Your task to perform on an android device: turn pop-ups off in chrome Image 0: 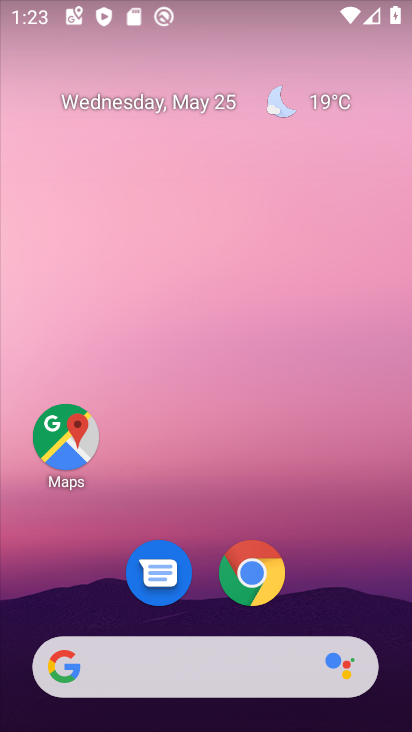
Step 0: click (249, 573)
Your task to perform on an android device: turn pop-ups off in chrome Image 1: 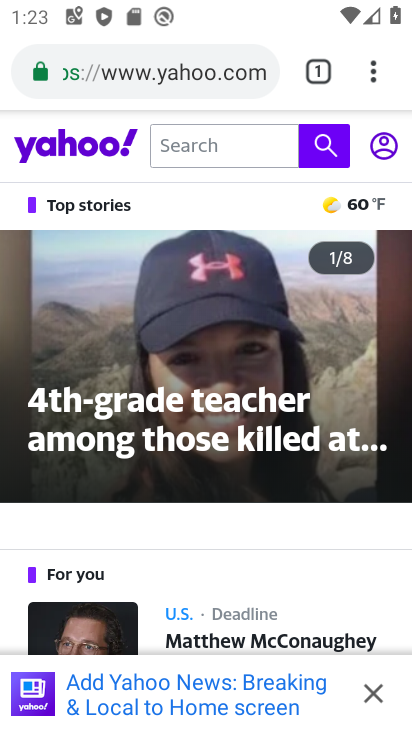
Step 1: click (372, 76)
Your task to perform on an android device: turn pop-ups off in chrome Image 2: 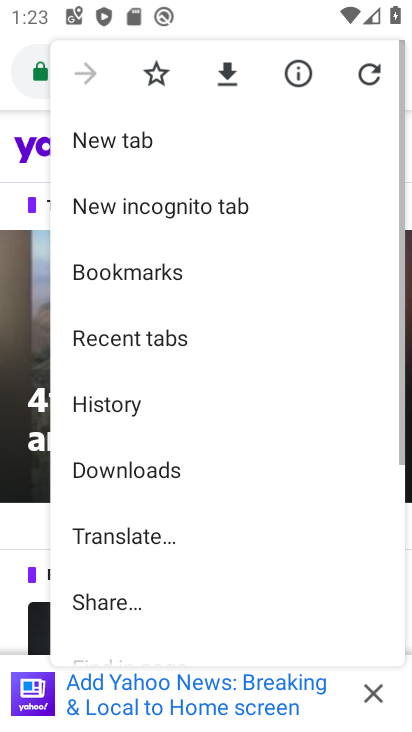
Step 2: drag from (205, 557) to (287, 159)
Your task to perform on an android device: turn pop-ups off in chrome Image 3: 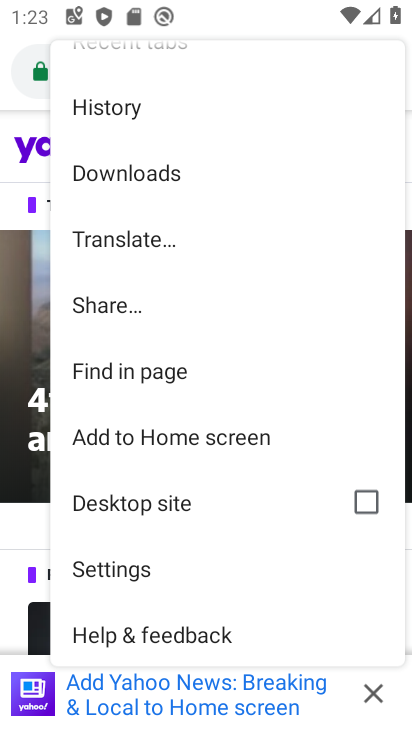
Step 3: click (133, 588)
Your task to perform on an android device: turn pop-ups off in chrome Image 4: 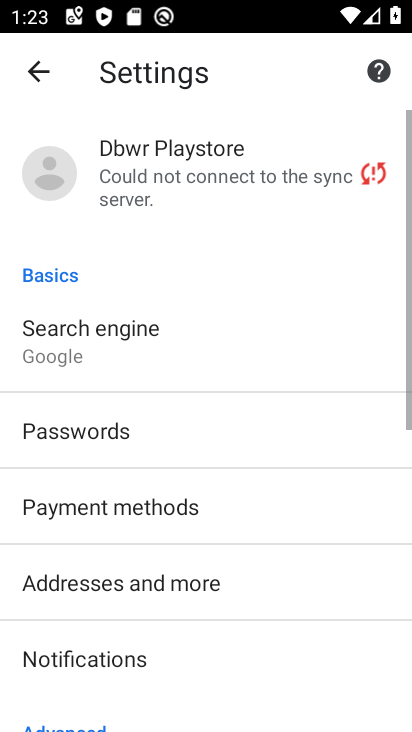
Step 4: drag from (217, 614) to (250, 226)
Your task to perform on an android device: turn pop-ups off in chrome Image 5: 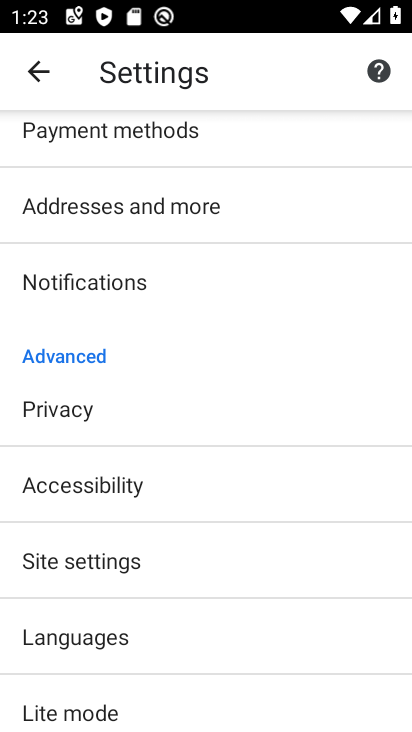
Step 5: click (84, 565)
Your task to perform on an android device: turn pop-ups off in chrome Image 6: 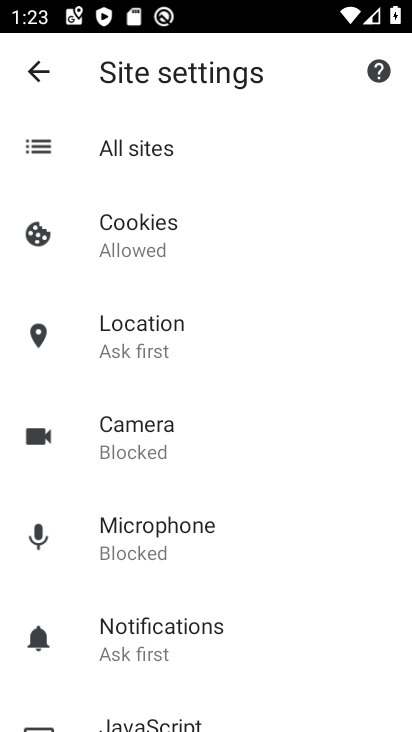
Step 6: drag from (239, 628) to (232, 220)
Your task to perform on an android device: turn pop-ups off in chrome Image 7: 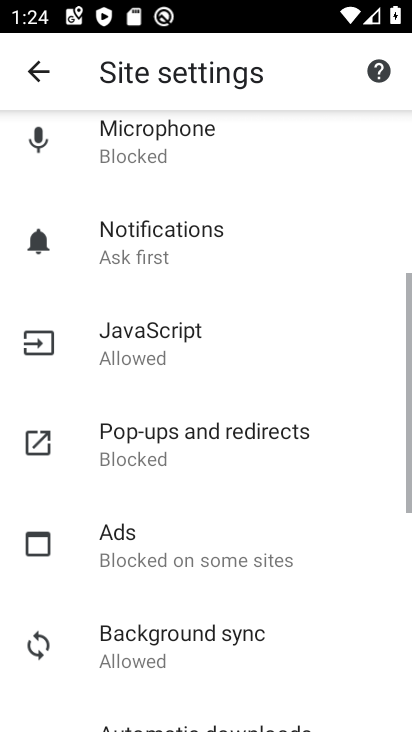
Step 7: click (164, 440)
Your task to perform on an android device: turn pop-ups off in chrome Image 8: 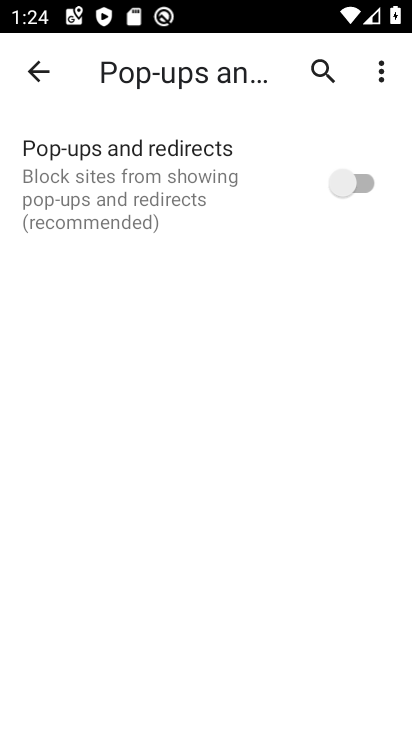
Step 8: task complete